Your task to perform on an android device: refresh tabs in the chrome app Image 0: 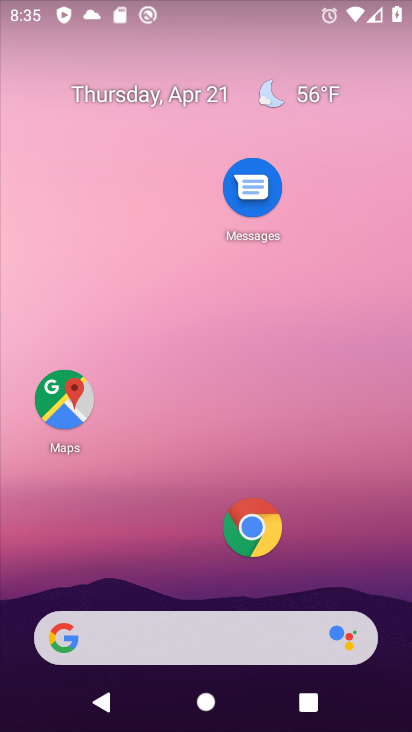
Step 0: drag from (169, 637) to (361, 102)
Your task to perform on an android device: refresh tabs in the chrome app Image 1: 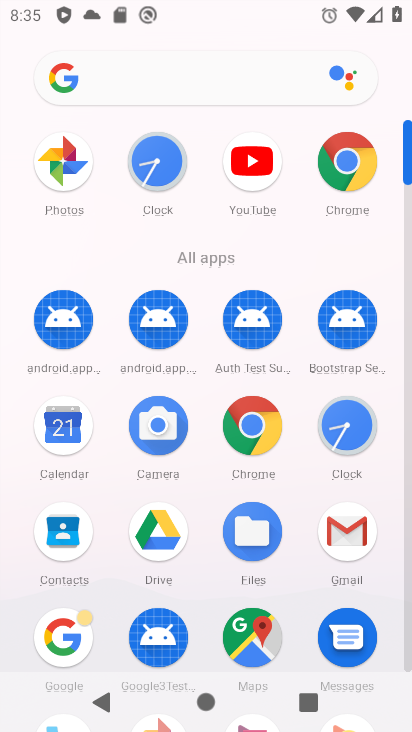
Step 1: click (353, 174)
Your task to perform on an android device: refresh tabs in the chrome app Image 2: 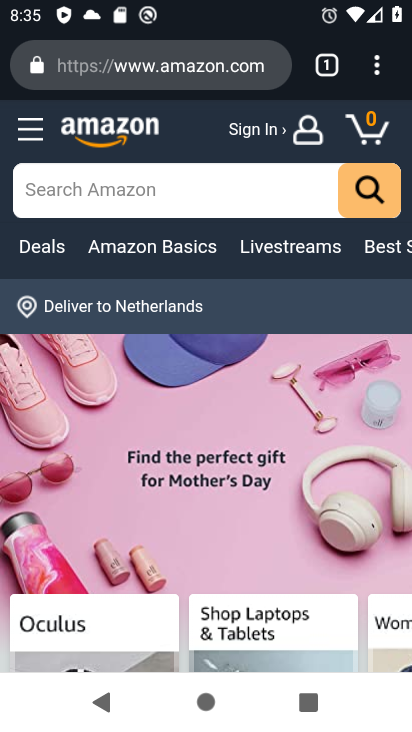
Step 2: click (369, 80)
Your task to perform on an android device: refresh tabs in the chrome app Image 3: 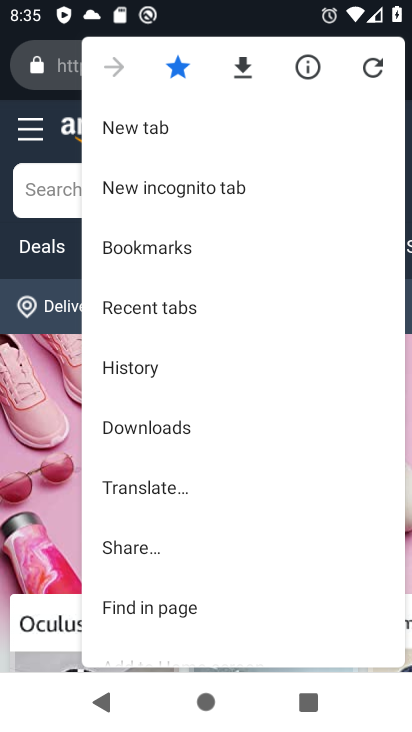
Step 3: click (370, 70)
Your task to perform on an android device: refresh tabs in the chrome app Image 4: 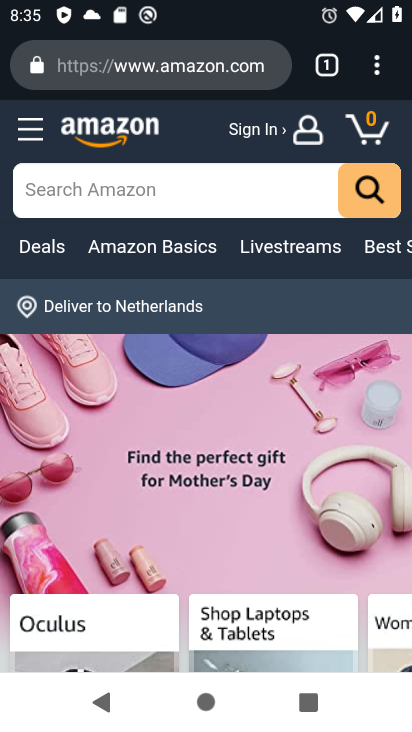
Step 4: task complete